Your task to perform on an android device: install app "Adobe Acrobat Reader" Image 0: 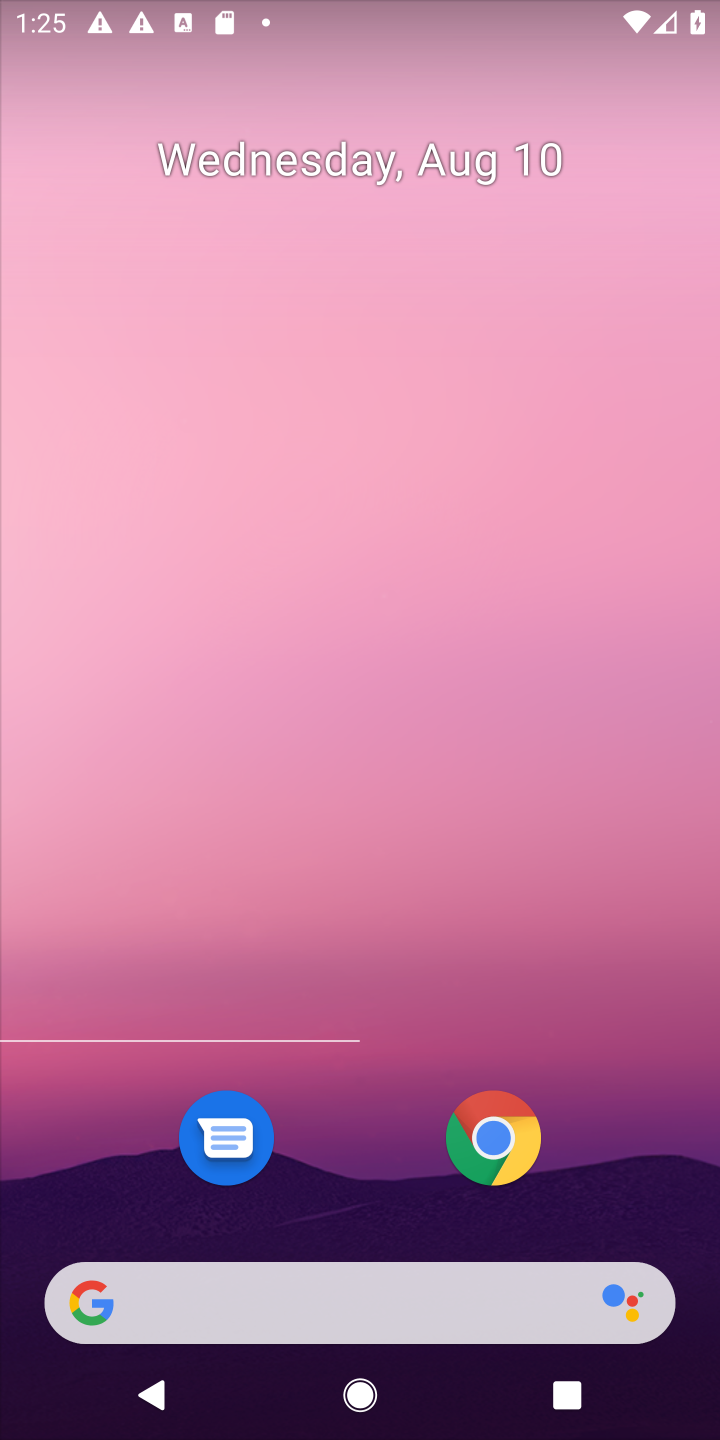
Step 0: press home button
Your task to perform on an android device: install app "Adobe Acrobat Reader" Image 1: 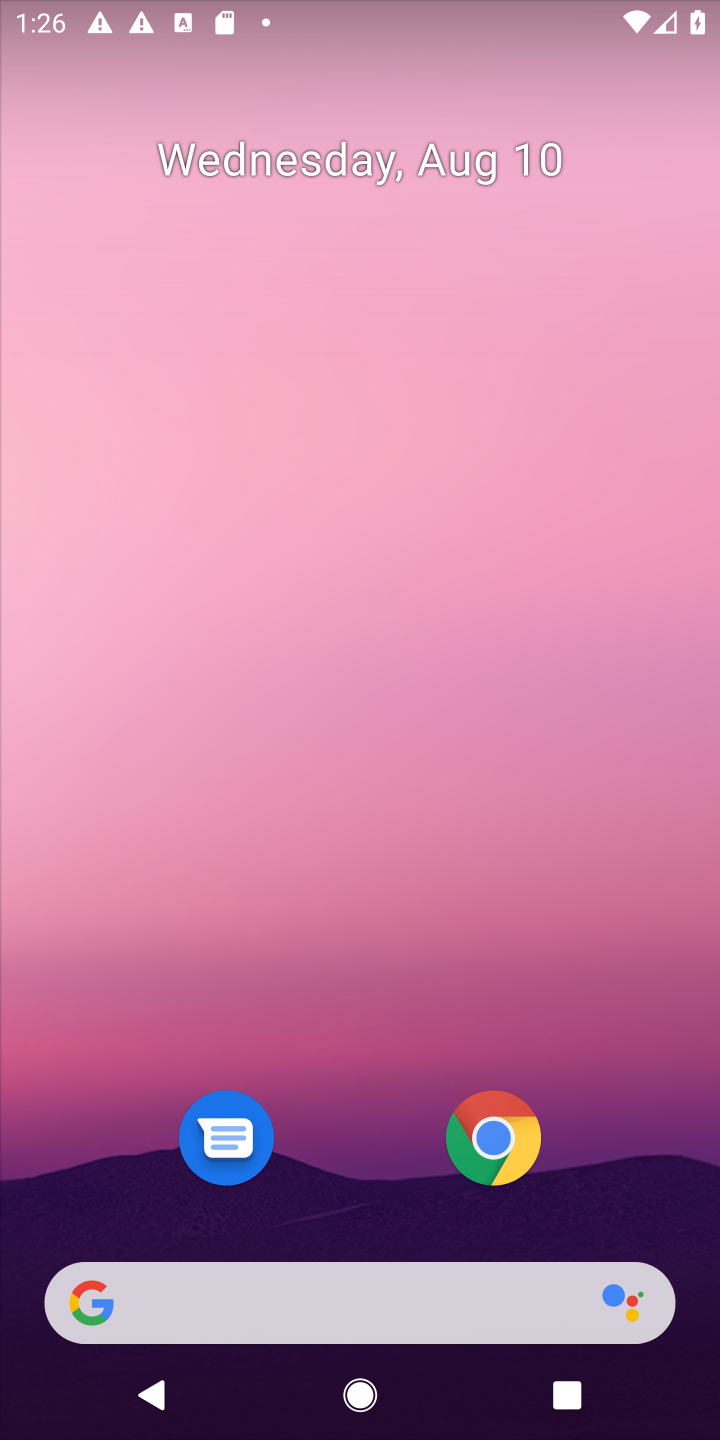
Step 1: drag from (590, 1186) to (649, 162)
Your task to perform on an android device: install app "Adobe Acrobat Reader" Image 2: 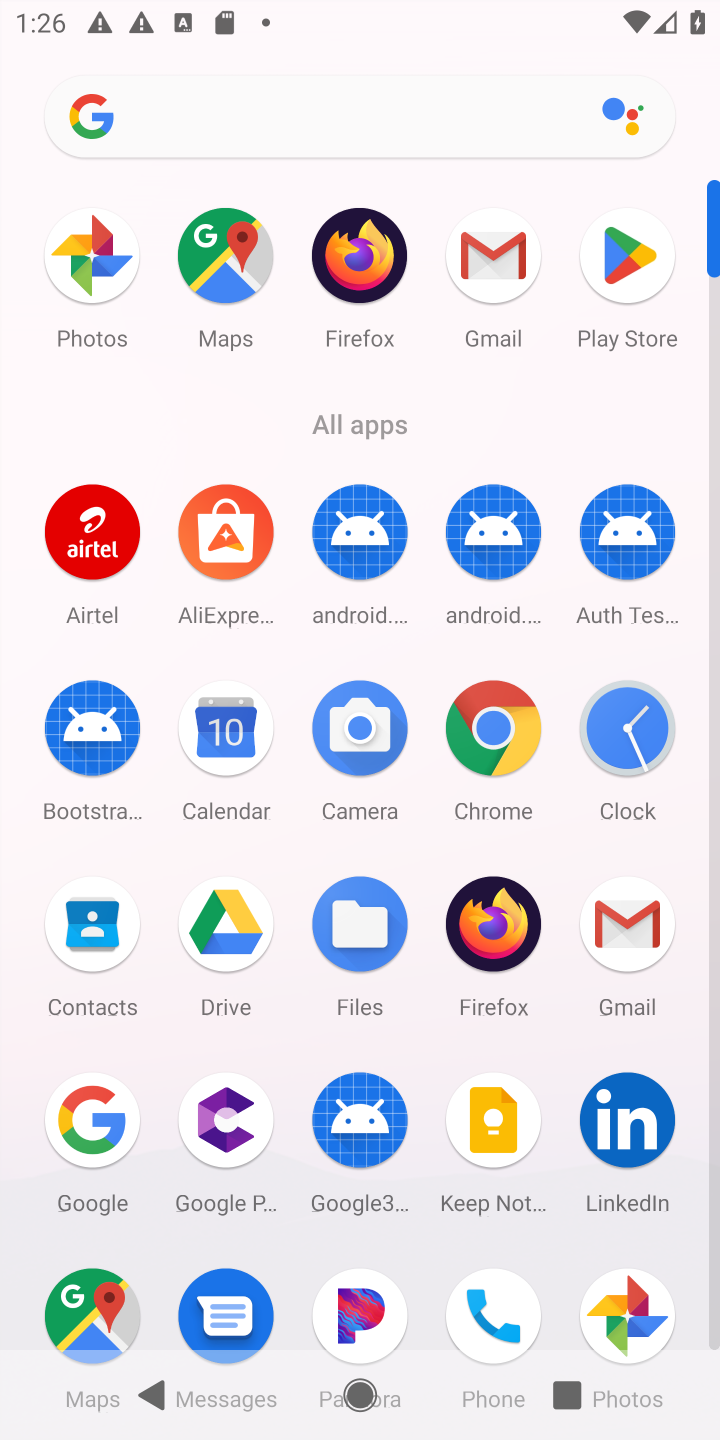
Step 2: click (626, 262)
Your task to perform on an android device: install app "Adobe Acrobat Reader" Image 3: 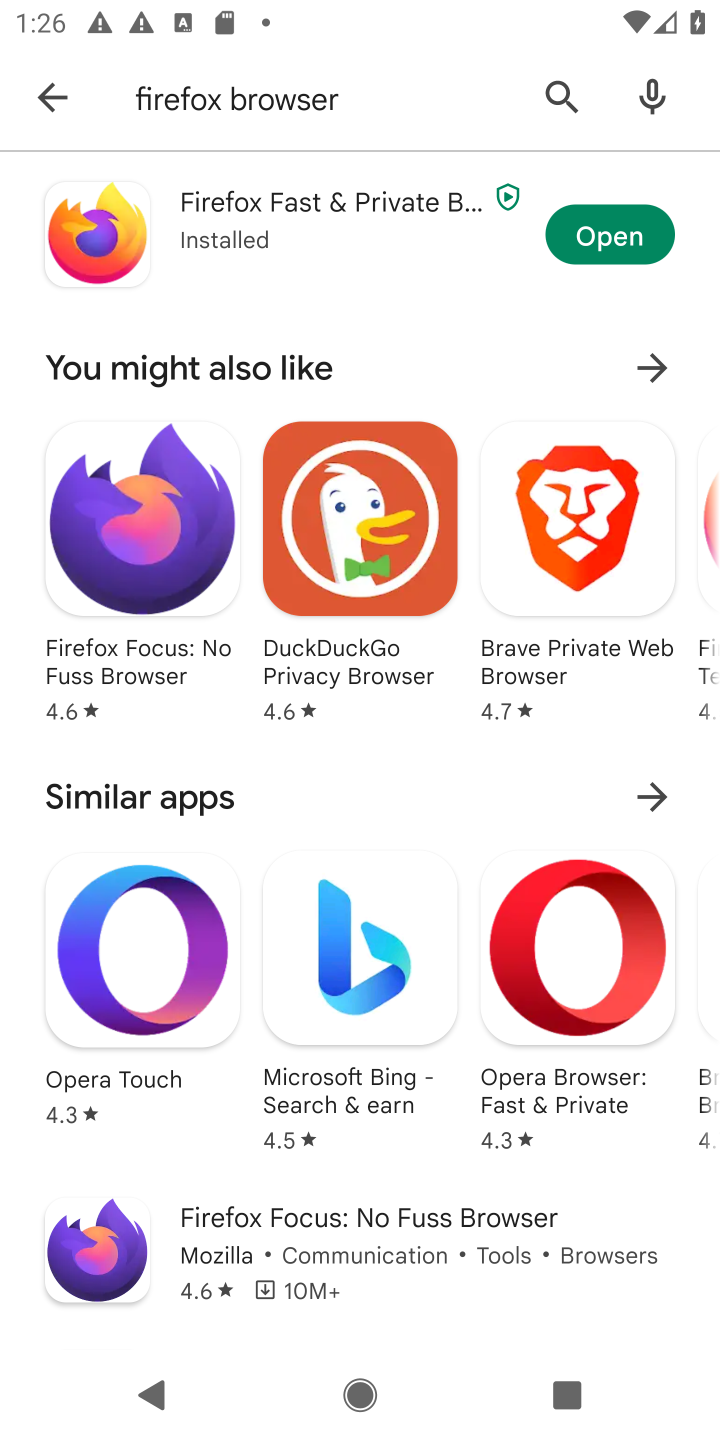
Step 3: click (546, 86)
Your task to perform on an android device: install app "Adobe Acrobat Reader" Image 4: 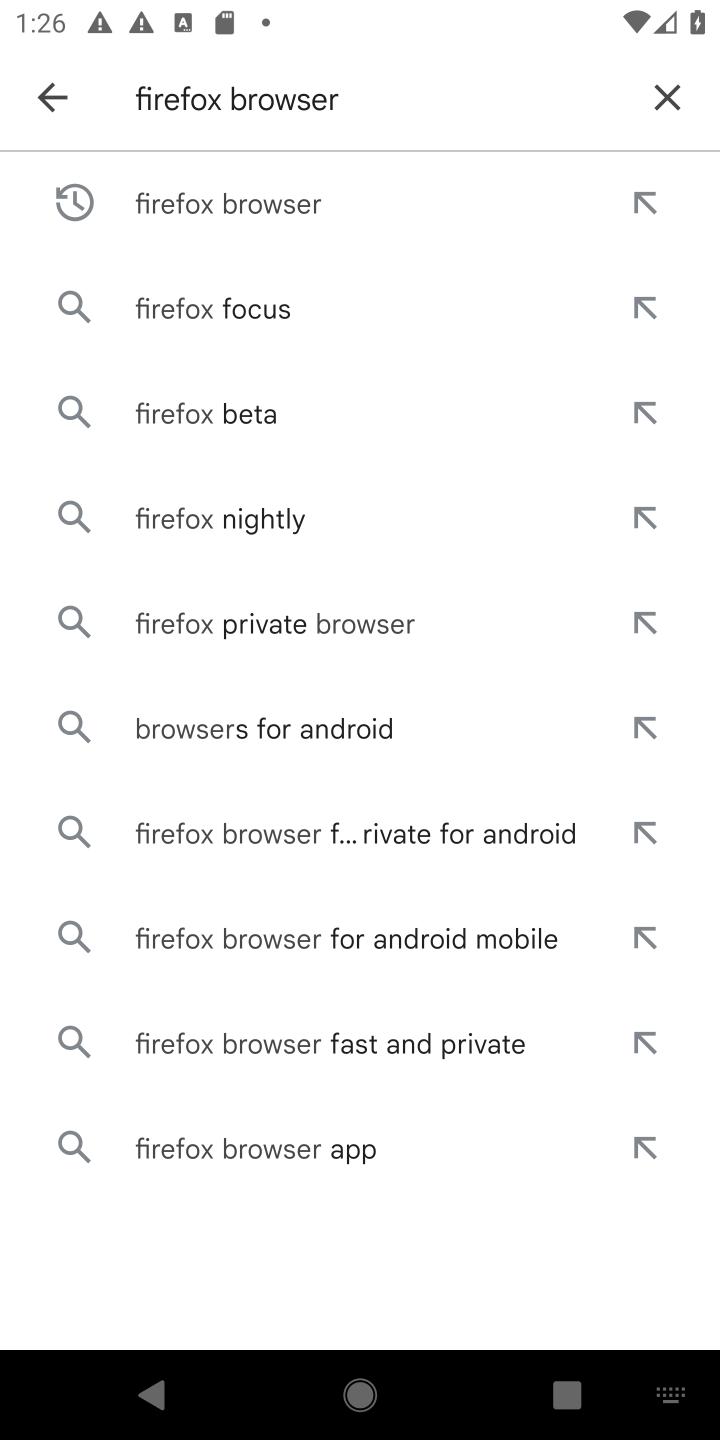
Step 4: click (657, 91)
Your task to perform on an android device: install app "Adobe Acrobat Reader" Image 5: 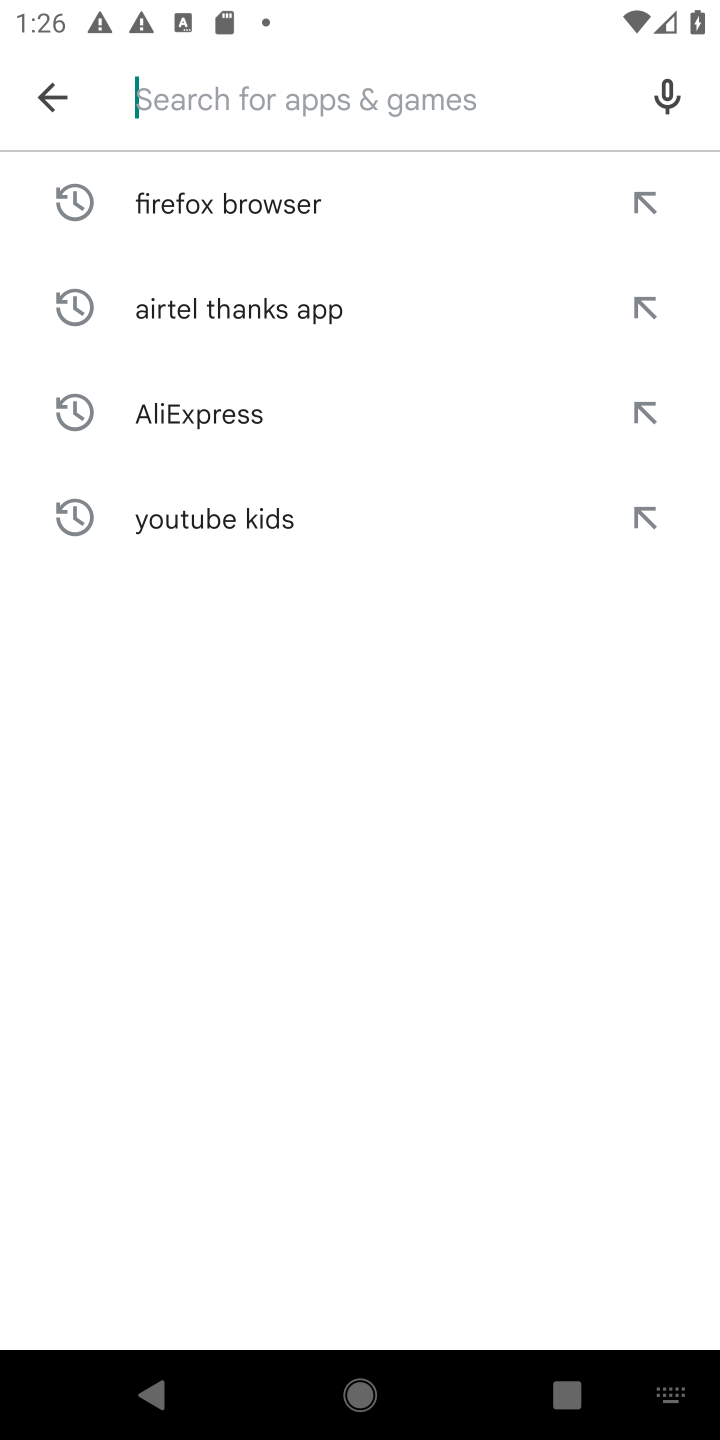
Step 5: type "Adobe Acrobat Reader"
Your task to perform on an android device: install app "Adobe Acrobat Reader" Image 6: 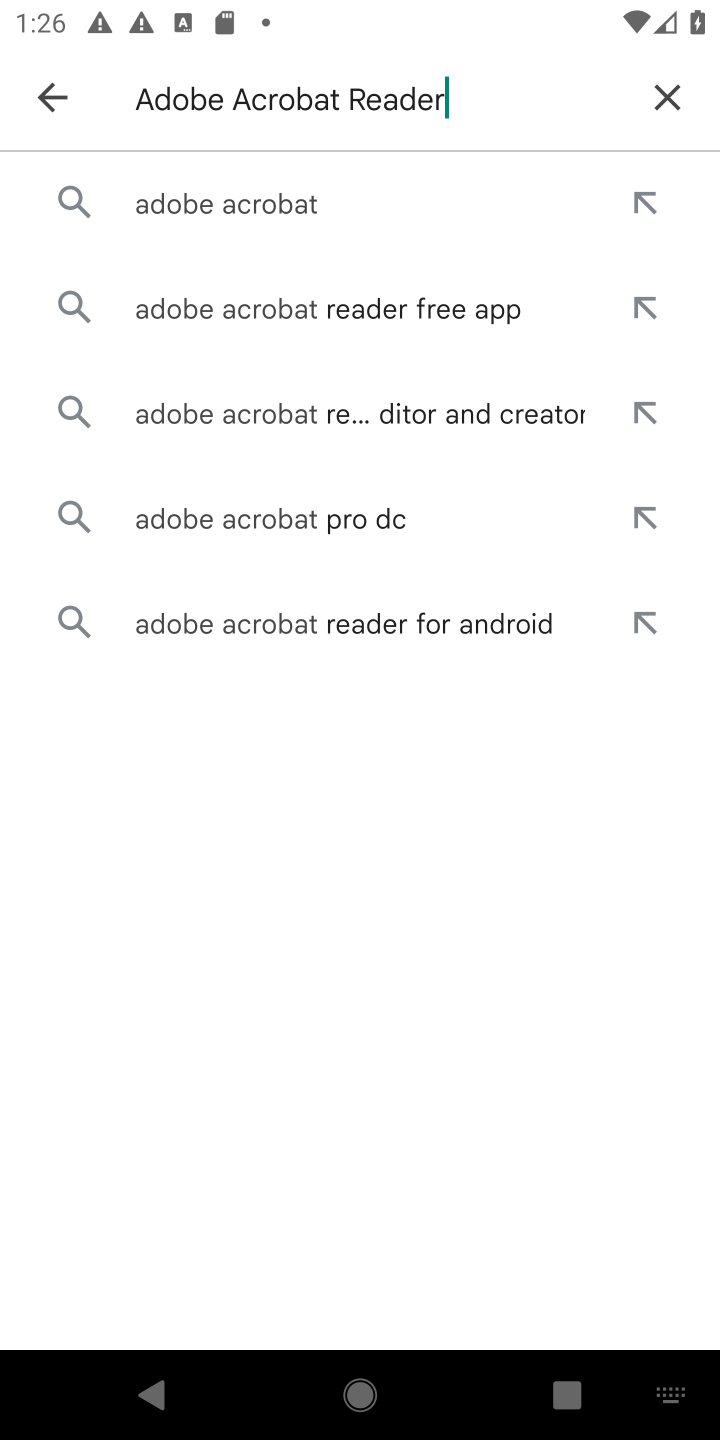
Step 6: press enter
Your task to perform on an android device: install app "Adobe Acrobat Reader" Image 7: 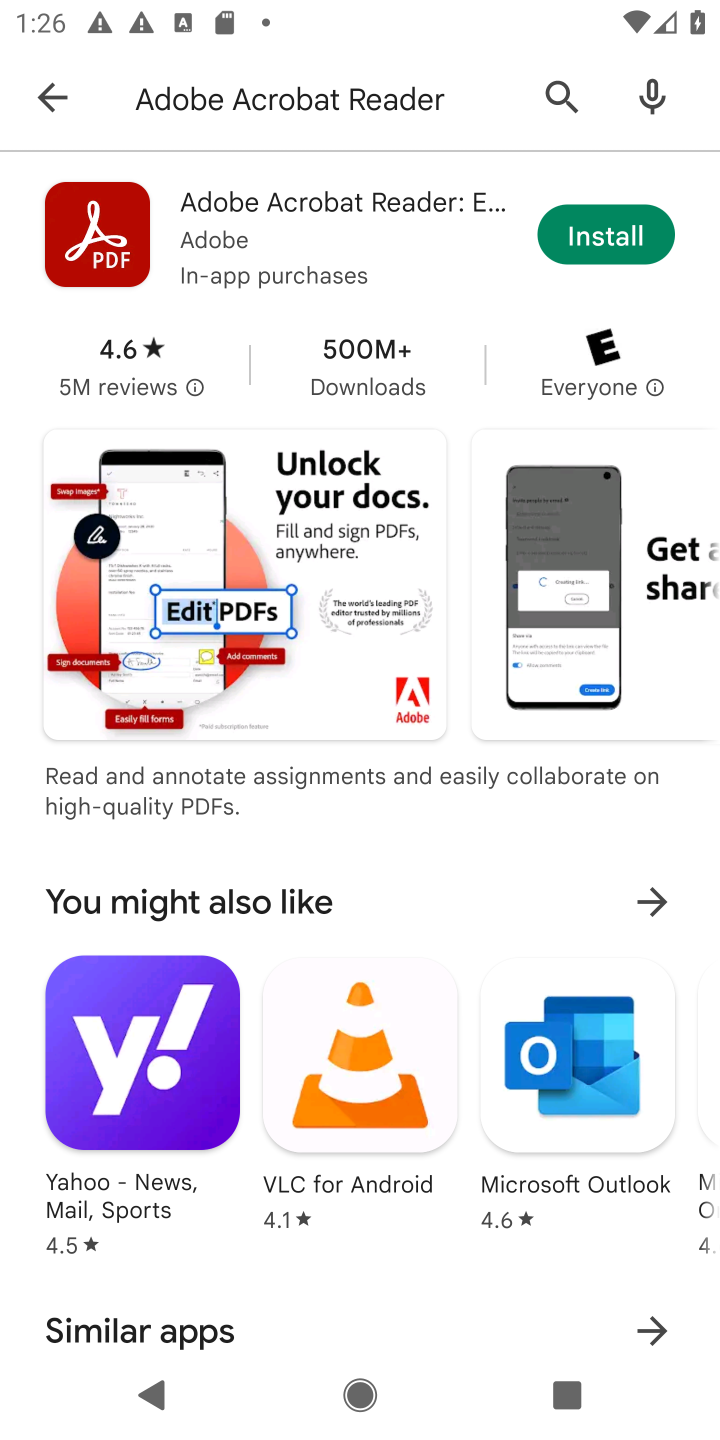
Step 7: click (608, 237)
Your task to perform on an android device: install app "Adobe Acrobat Reader" Image 8: 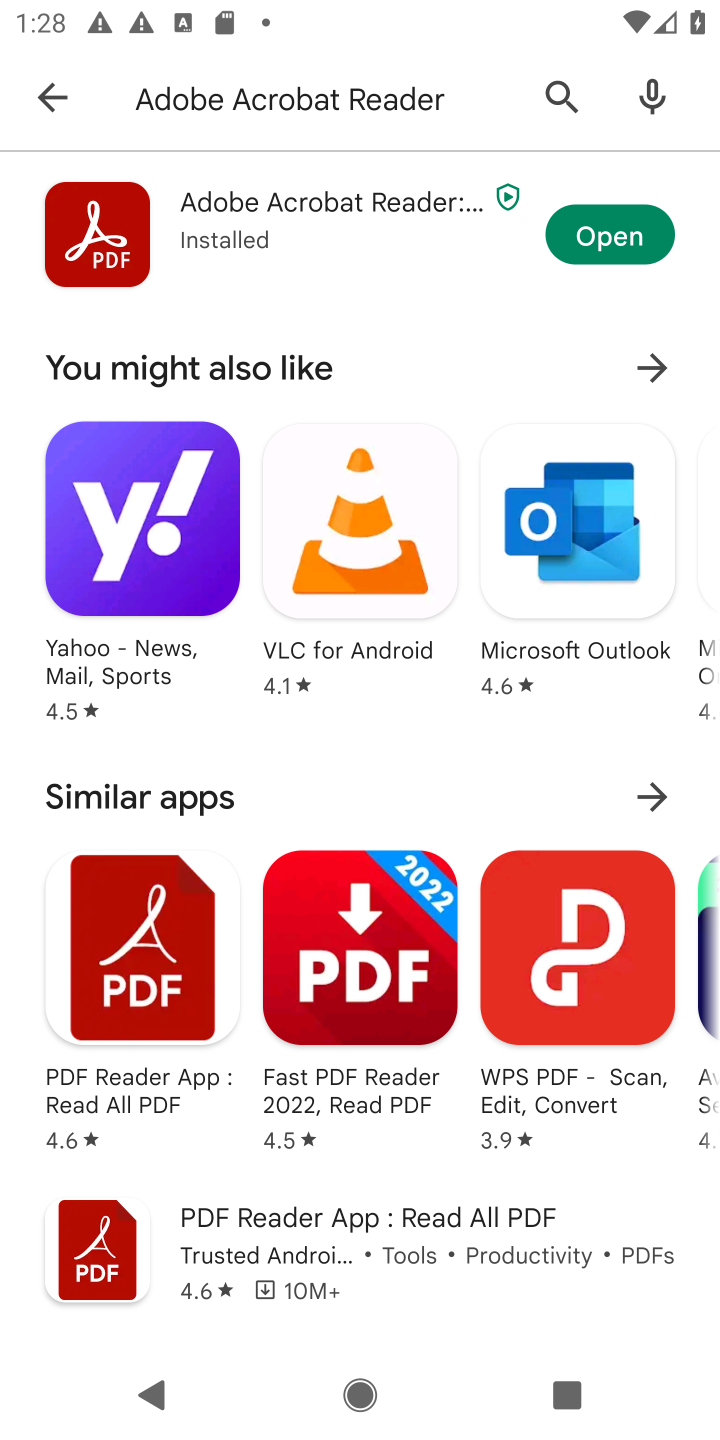
Step 8: task complete